Your task to perform on an android device: Open wifi settings Image 0: 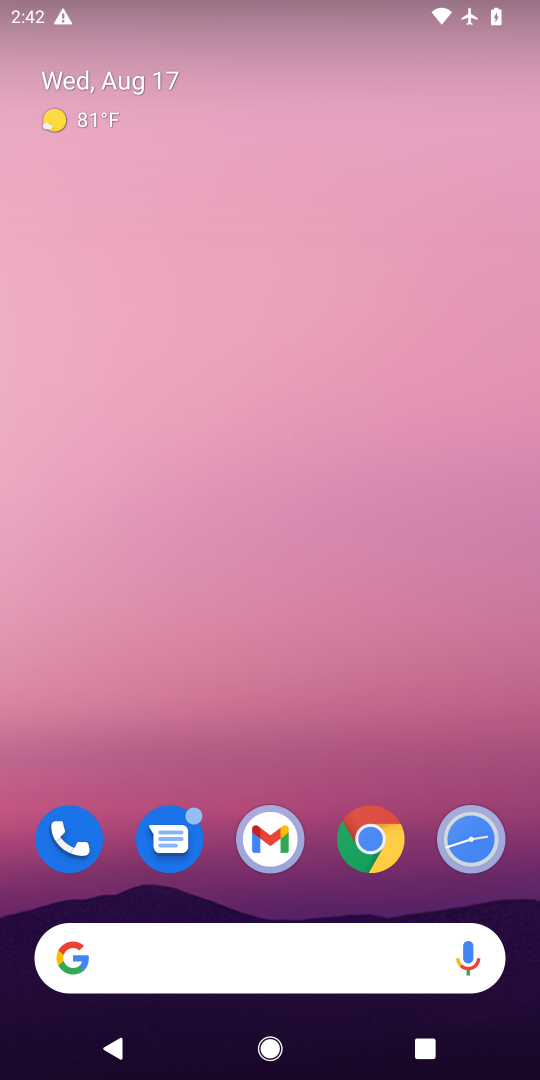
Step 0: drag from (318, 898) to (319, 47)
Your task to perform on an android device: Open wifi settings Image 1: 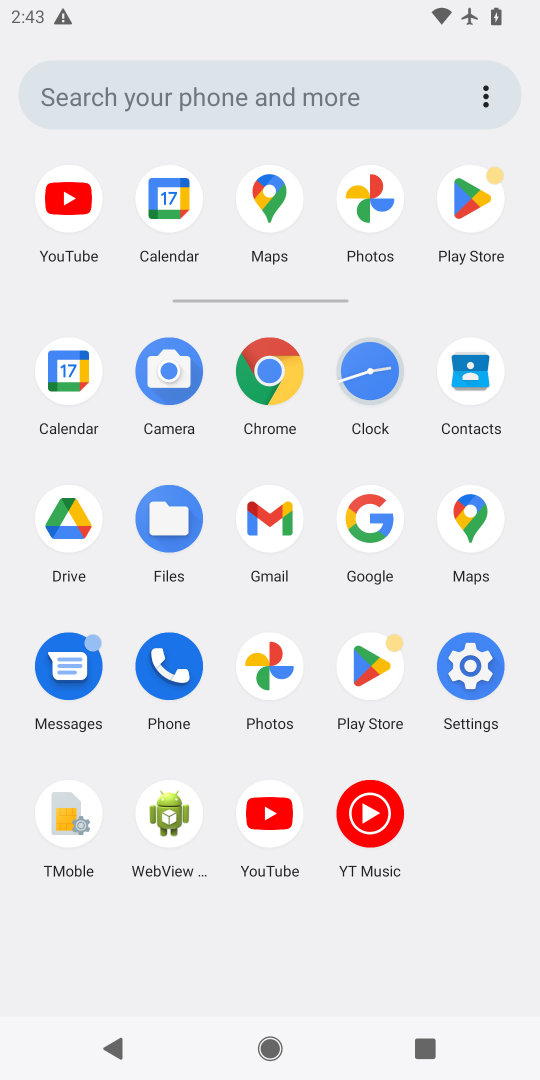
Step 1: click (455, 674)
Your task to perform on an android device: Open wifi settings Image 2: 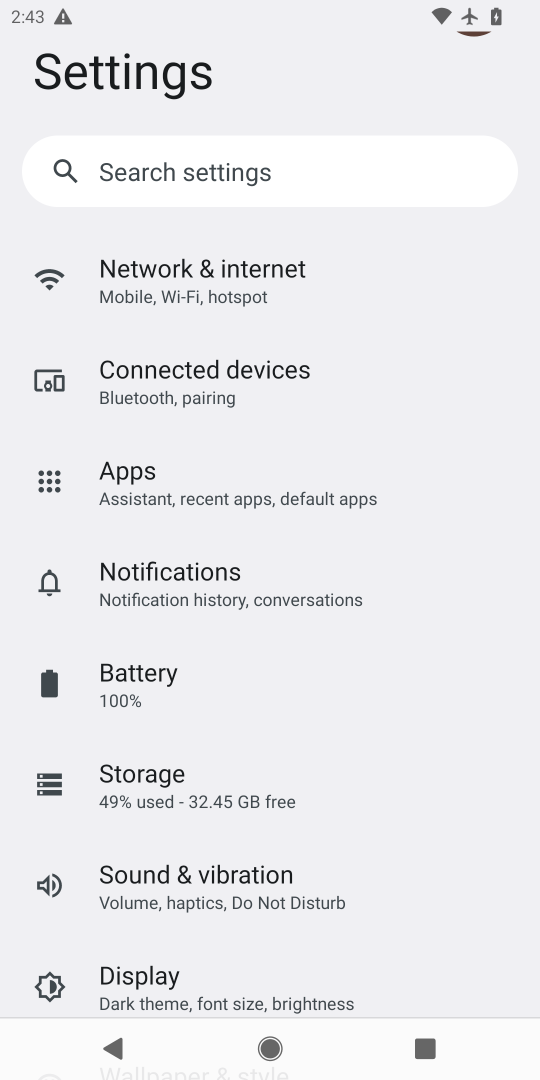
Step 2: click (204, 274)
Your task to perform on an android device: Open wifi settings Image 3: 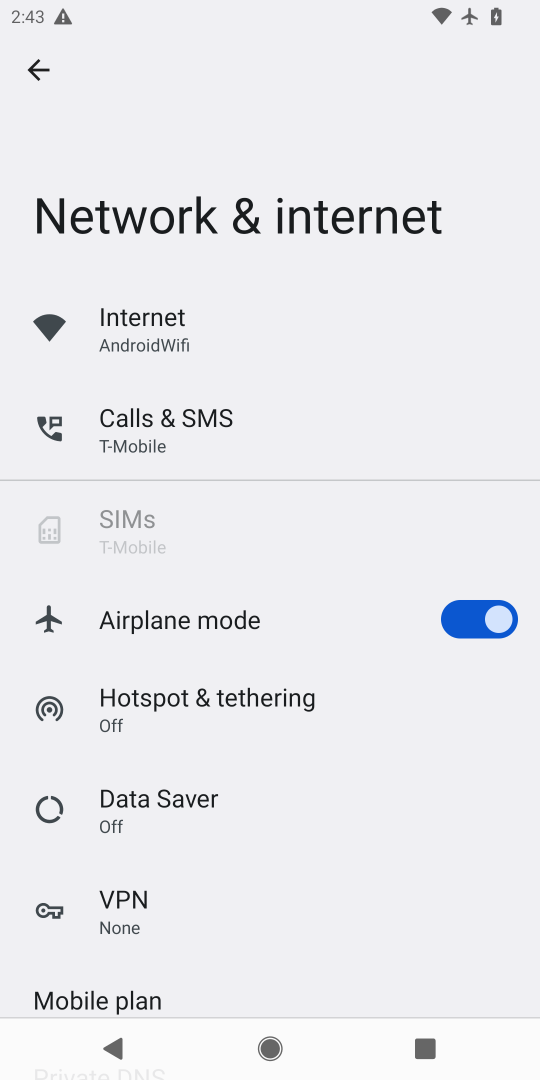
Step 3: click (129, 336)
Your task to perform on an android device: Open wifi settings Image 4: 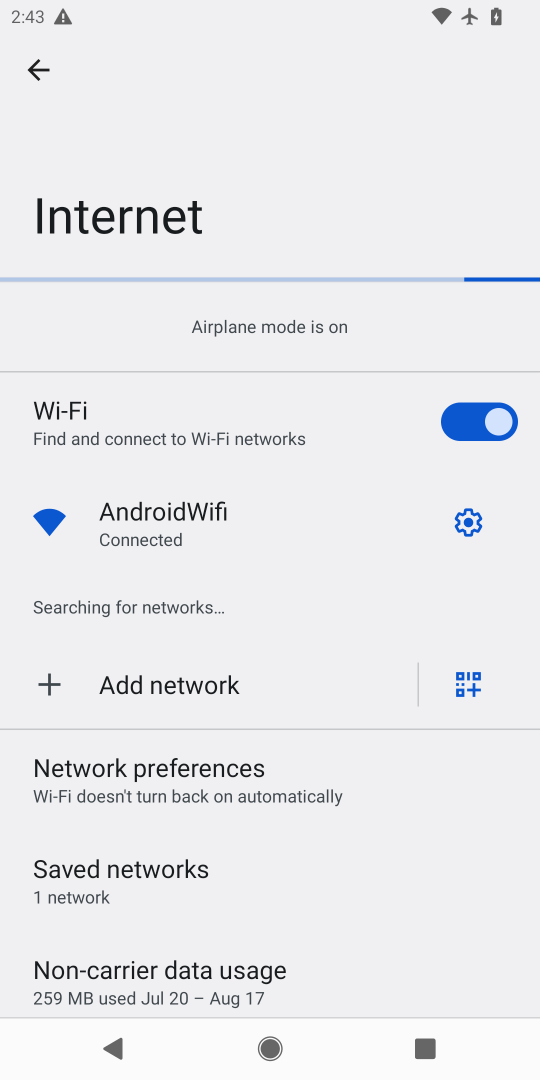
Step 4: click (124, 509)
Your task to perform on an android device: Open wifi settings Image 5: 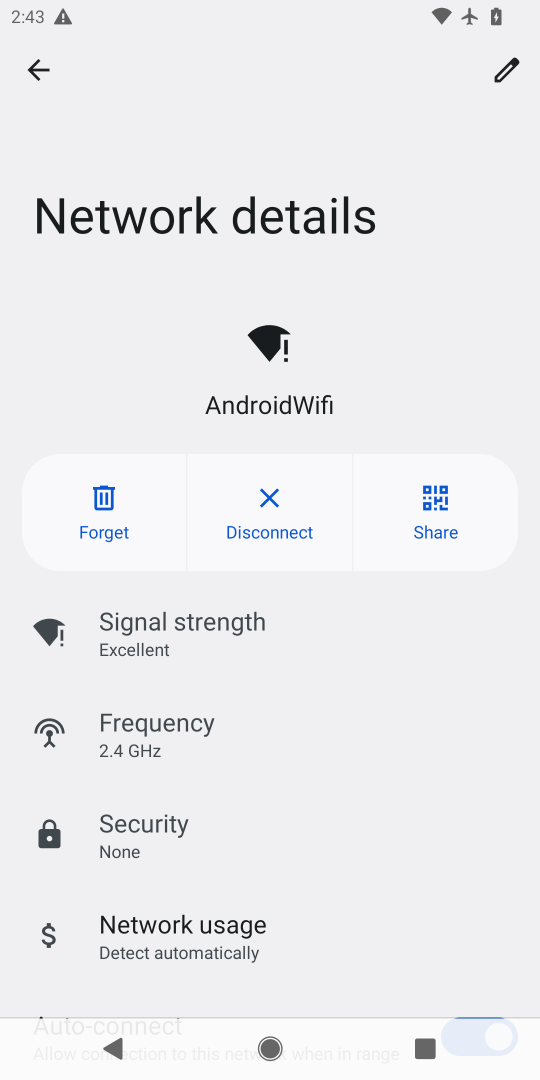
Step 5: task complete